Your task to perform on an android device: Open Android settings Image 0: 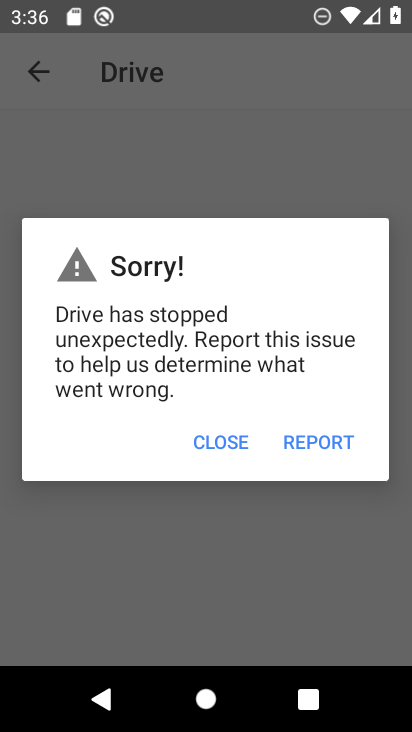
Step 0: press back button
Your task to perform on an android device: Open Android settings Image 1: 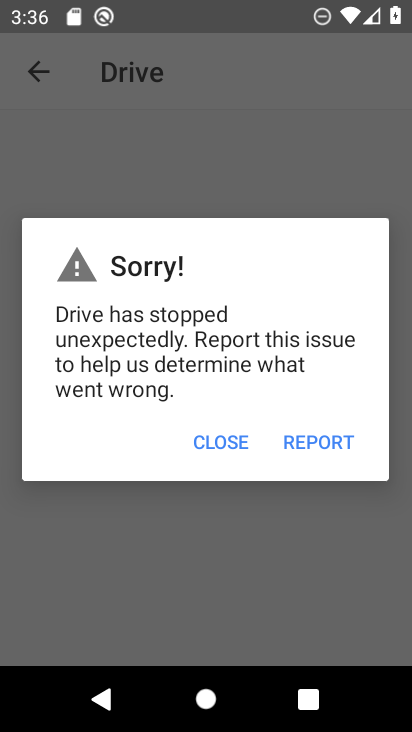
Step 1: press home button
Your task to perform on an android device: Open Android settings Image 2: 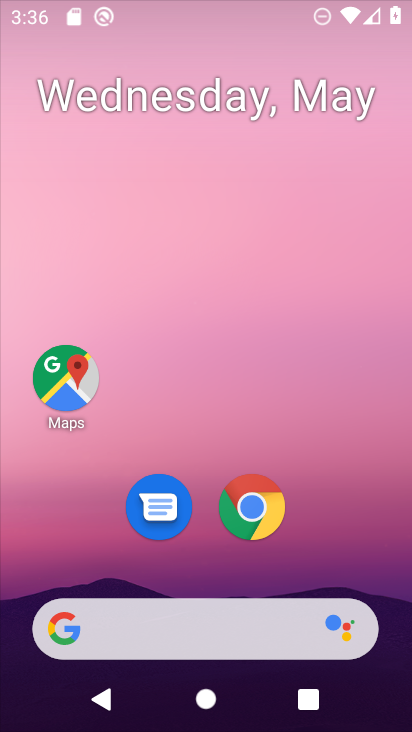
Step 2: drag from (184, 477) to (219, 0)
Your task to perform on an android device: Open Android settings Image 3: 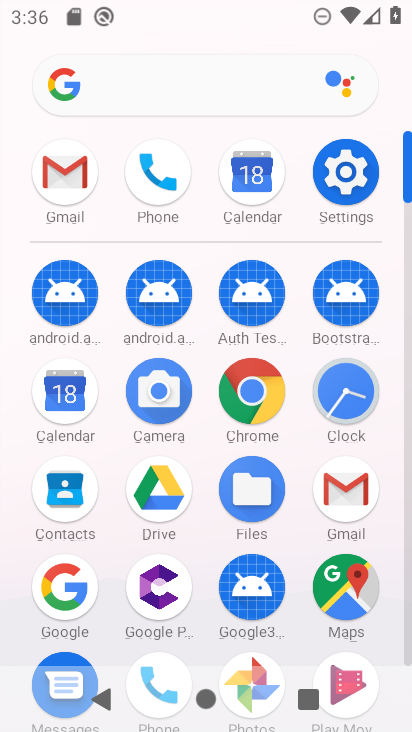
Step 3: click (358, 169)
Your task to perform on an android device: Open Android settings Image 4: 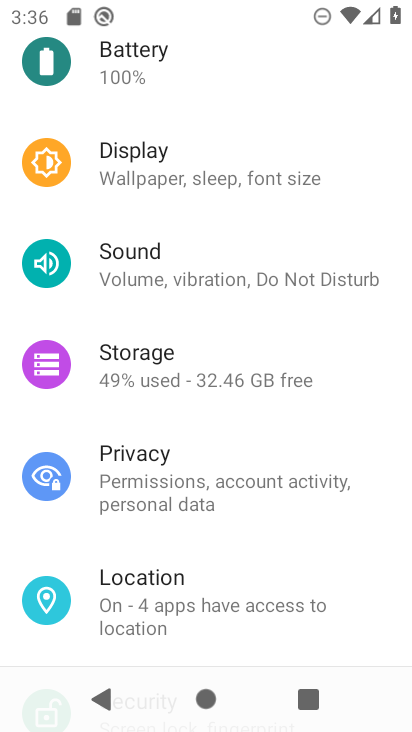
Step 4: drag from (156, 642) to (259, 65)
Your task to perform on an android device: Open Android settings Image 5: 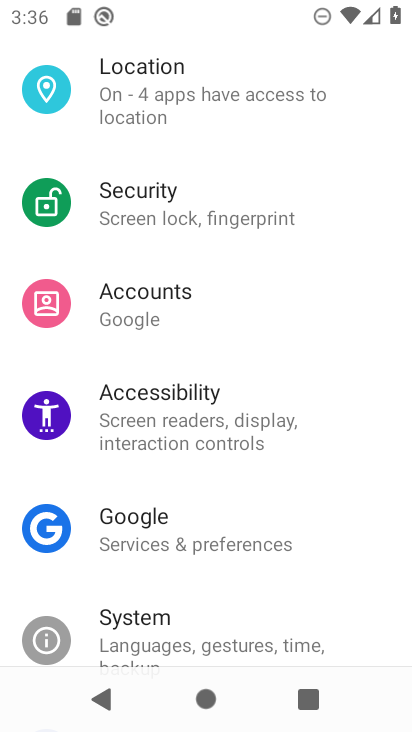
Step 5: drag from (168, 547) to (246, 3)
Your task to perform on an android device: Open Android settings Image 6: 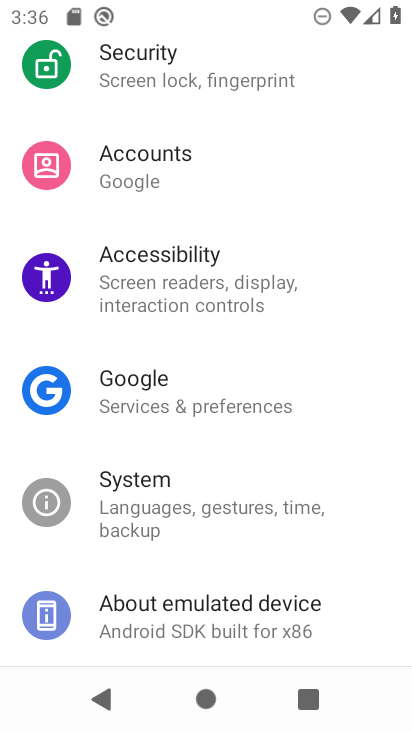
Step 6: click (136, 588)
Your task to perform on an android device: Open Android settings Image 7: 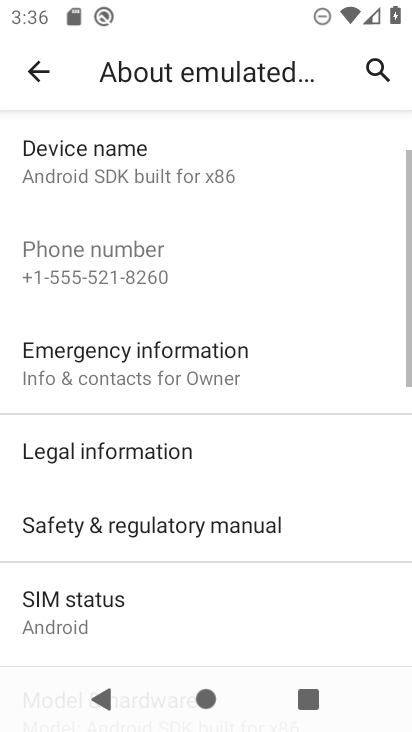
Step 7: drag from (137, 584) to (232, 33)
Your task to perform on an android device: Open Android settings Image 8: 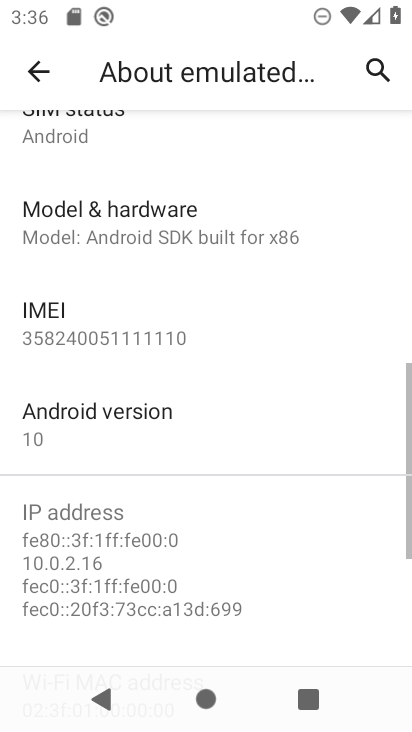
Step 8: click (61, 418)
Your task to perform on an android device: Open Android settings Image 9: 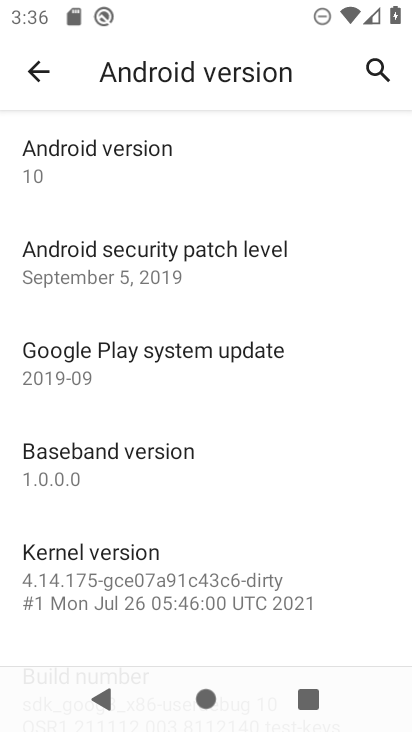
Step 9: task complete